Your task to perform on an android device: turn off javascript in the chrome app Image 0: 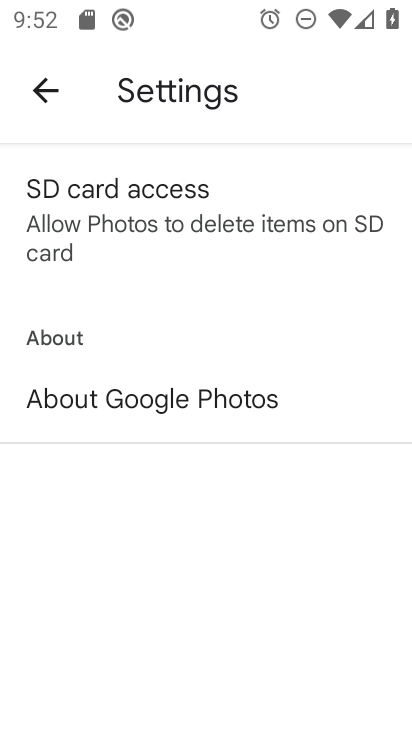
Step 0: press home button
Your task to perform on an android device: turn off javascript in the chrome app Image 1: 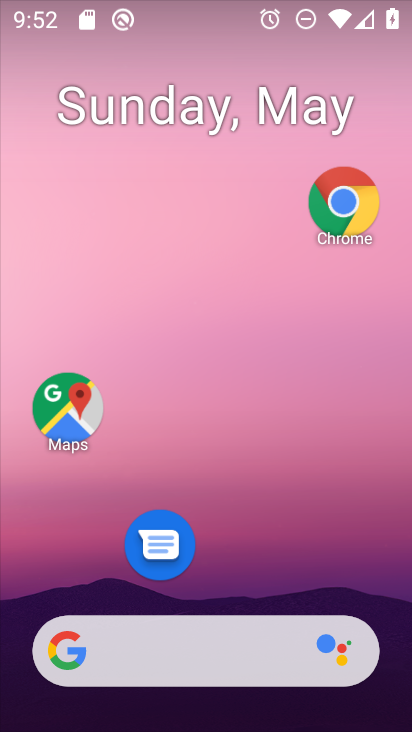
Step 1: click (335, 207)
Your task to perform on an android device: turn off javascript in the chrome app Image 2: 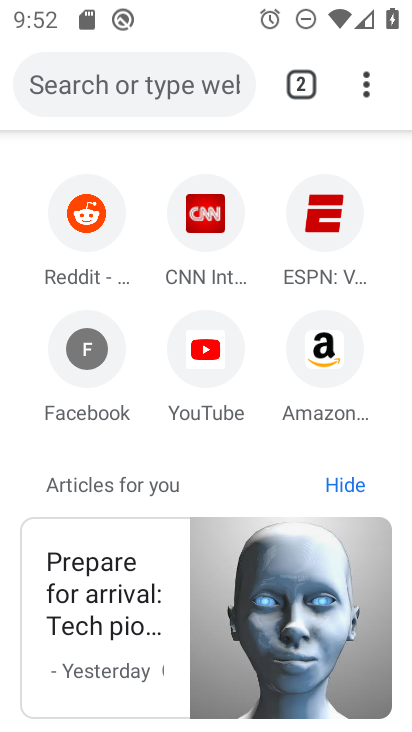
Step 2: click (367, 89)
Your task to perform on an android device: turn off javascript in the chrome app Image 3: 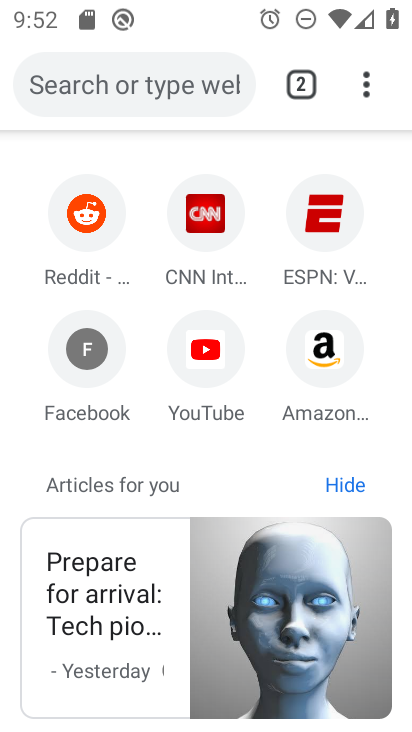
Step 3: click (367, 90)
Your task to perform on an android device: turn off javascript in the chrome app Image 4: 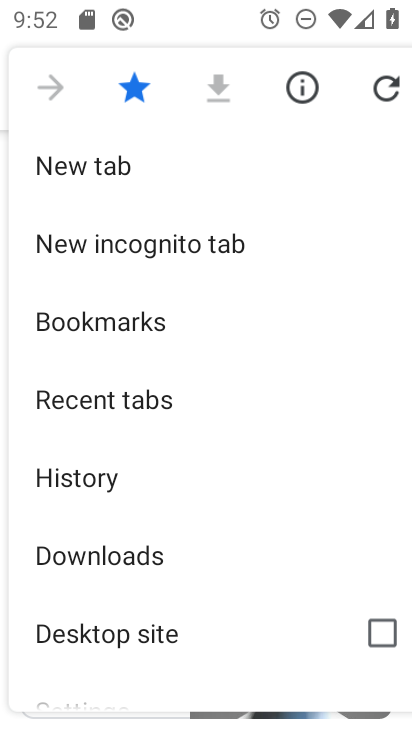
Step 4: drag from (189, 616) to (186, 390)
Your task to perform on an android device: turn off javascript in the chrome app Image 5: 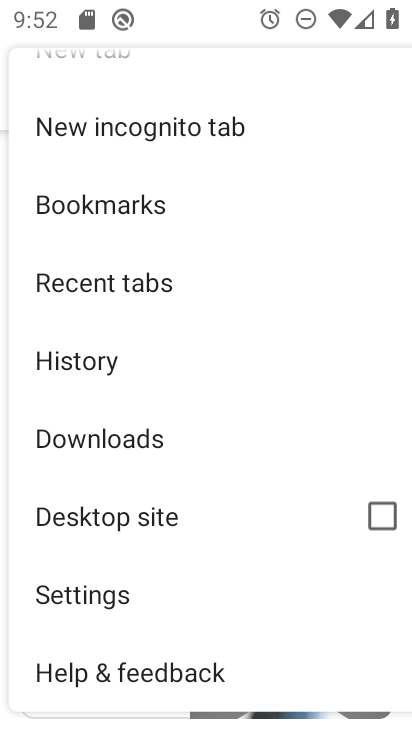
Step 5: click (149, 594)
Your task to perform on an android device: turn off javascript in the chrome app Image 6: 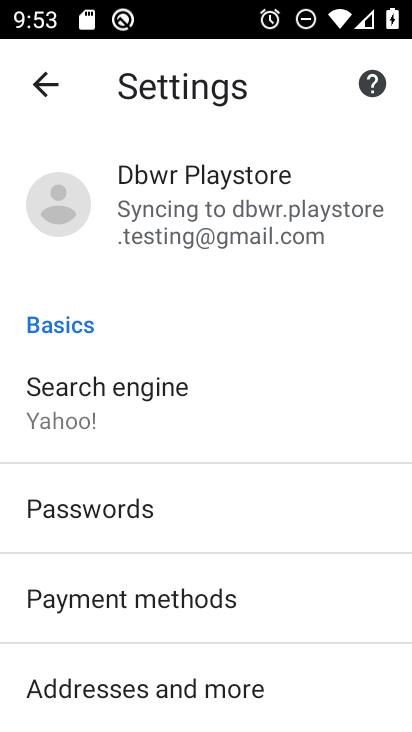
Step 6: drag from (181, 687) to (199, 430)
Your task to perform on an android device: turn off javascript in the chrome app Image 7: 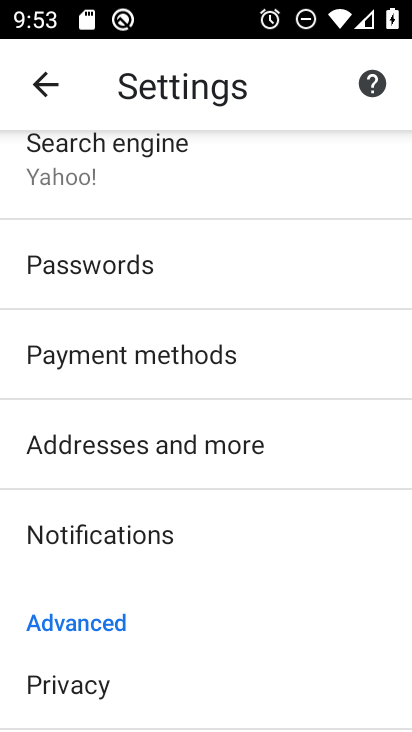
Step 7: drag from (208, 660) to (201, 450)
Your task to perform on an android device: turn off javascript in the chrome app Image 8: 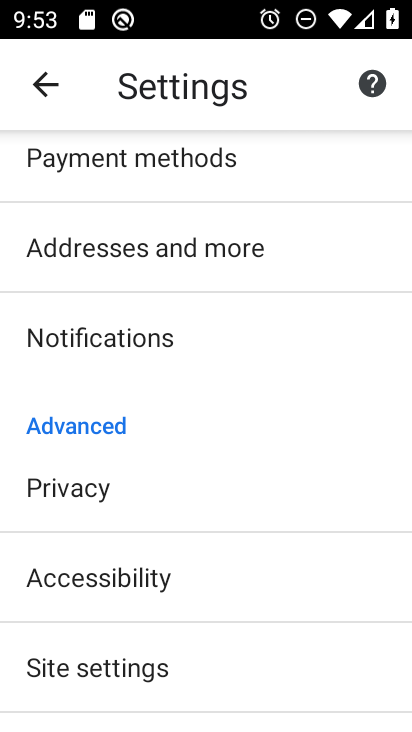
Step 8: drag from (196, 616) to (186, 496)
Your task to perform on an android device: turn off javascript in the chrome app Image 9: 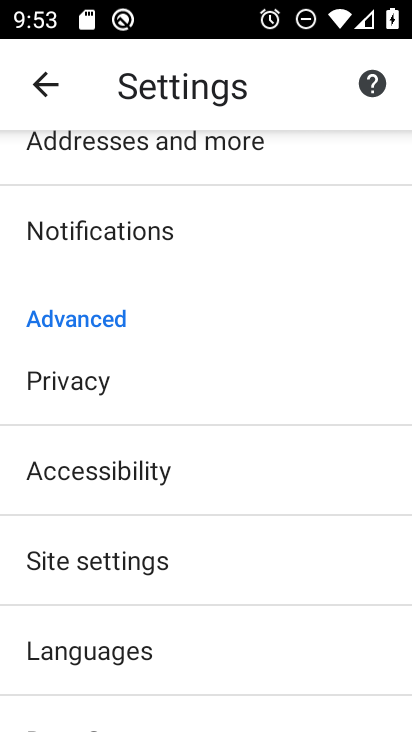
Step 9: click (150, 580)
Your task to perform on an android device: turn off javascript in the chrome app Image 10: 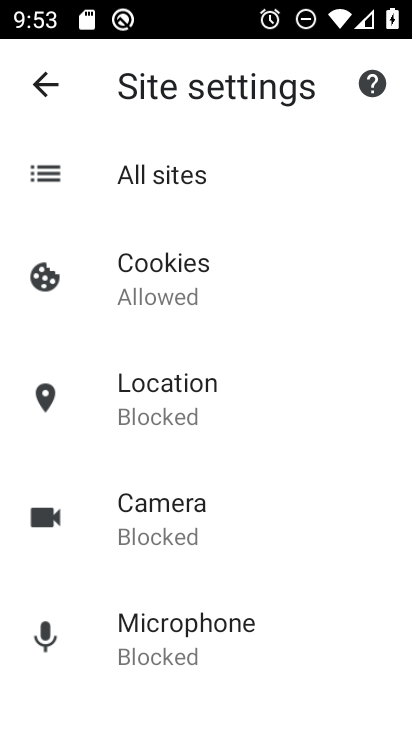
Step 10: drag from (175, 649) to (193, 396)
Your task to perform on an android device: turn off javascript in the chrome app Image 11: 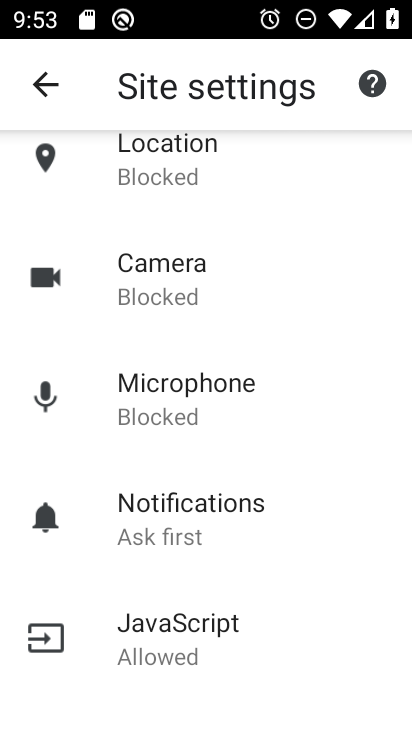
Step 11: click (194, 642)
Your task to perform on an android device: turn off javascript in the chrome app Image 12: 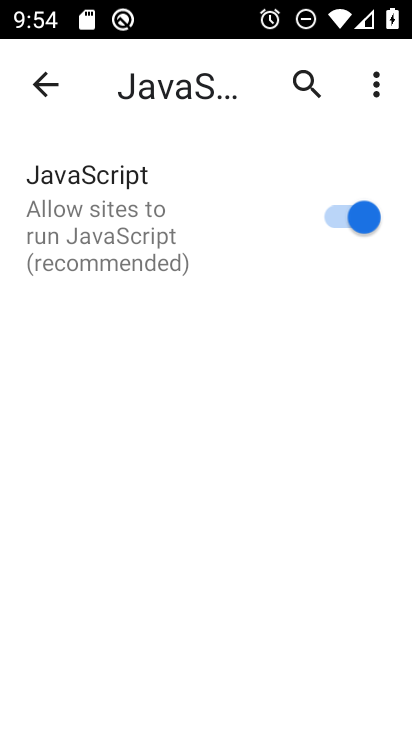
Step 12: click (375, 218)
Your task to perform on an android device: turn off javascript in the chrome app Image 13: 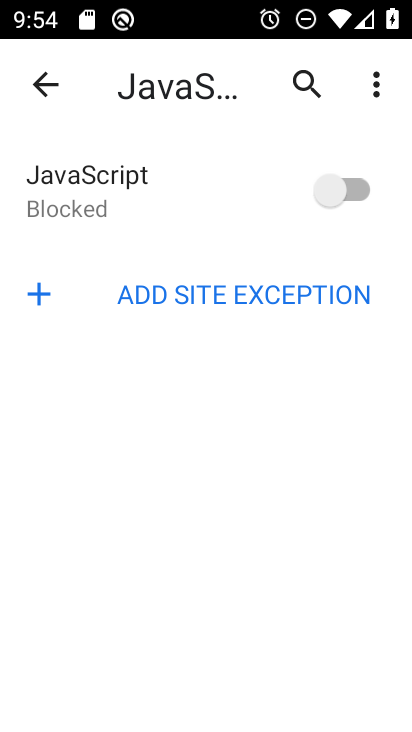
Step 13: task complete